Your task to perform on an android device: Open Maps and search for coffee Image 0: 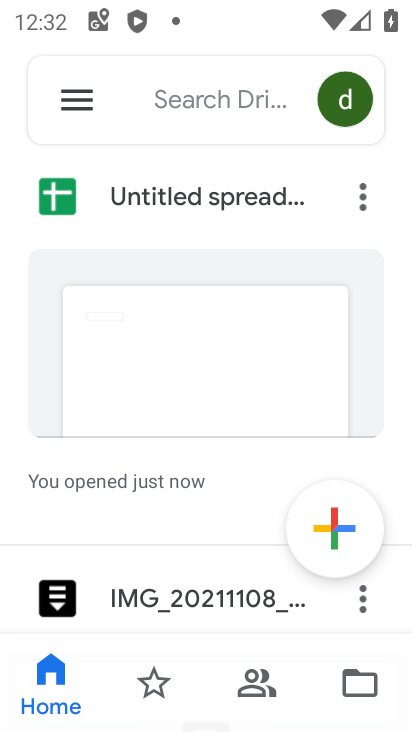
Step 0: press home button
Your task to perform on an android device: Open Maps and search for coffee Image 1: 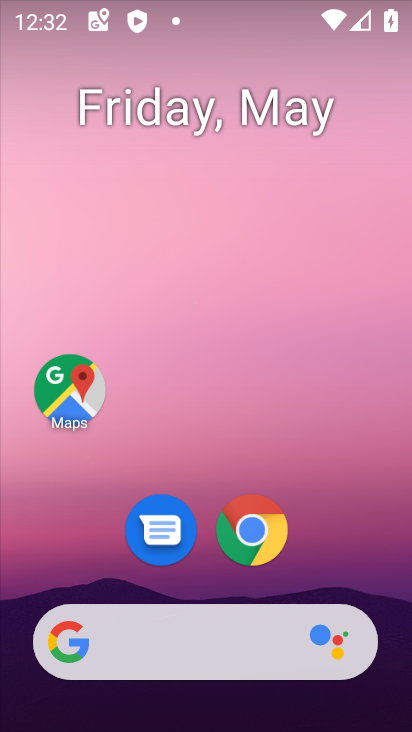
Step 1: click (70, 396)
Your task to perform on an android device: Open Maps and search for coffee Image 2: 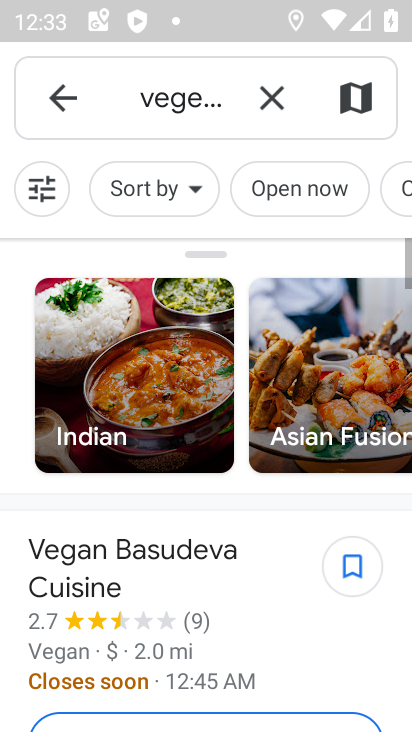
Step 2: click (264, 97)
Your task to perform on an android device: Open Maps and search for coffee Image 3: 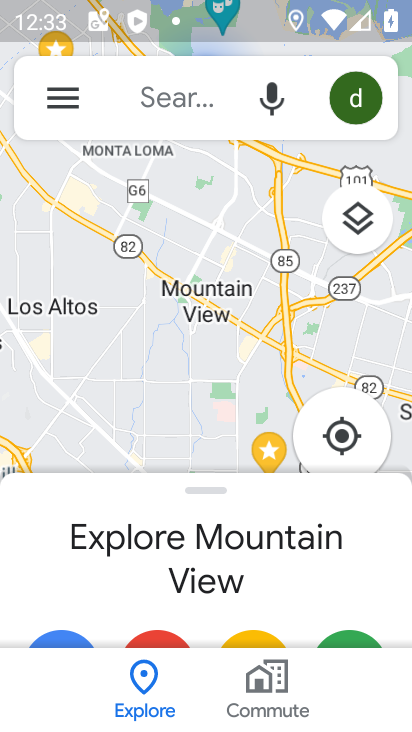
Step 3: click (215, 102)
Your task to perform on an android device: Open Maps and search for coffee Image 4: 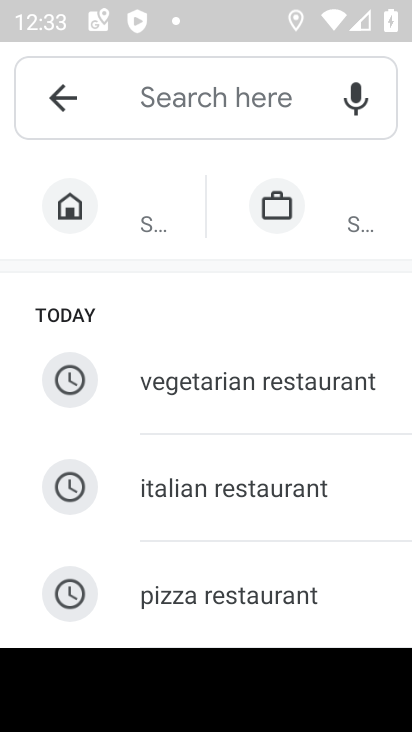
Step 4: type "coffee"
Your task to perform on an android device: Open Maps and search for coffee Image 5: 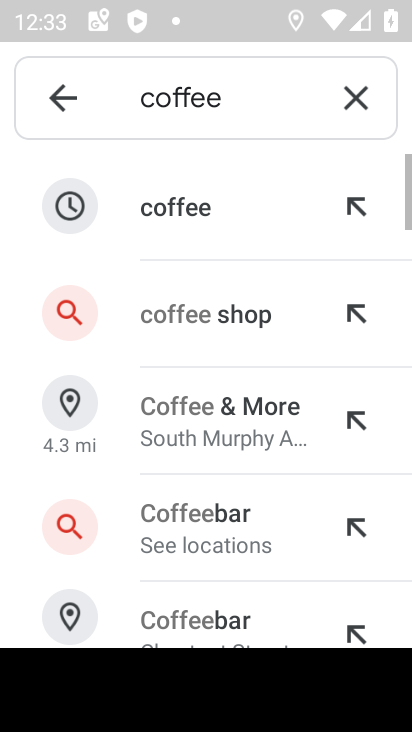
Step 5: click (184, 208)
Your task to perform on an android device: Open Maps and search for coffee Image 6: 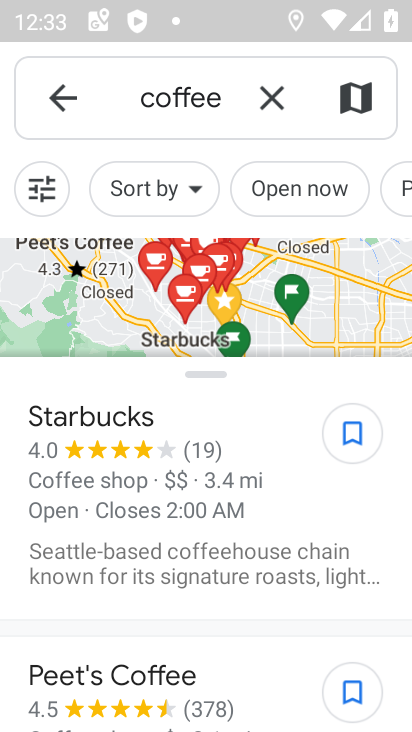
Step 6: task complete